Your task to perform on an android device: Open sound settings Image 0: 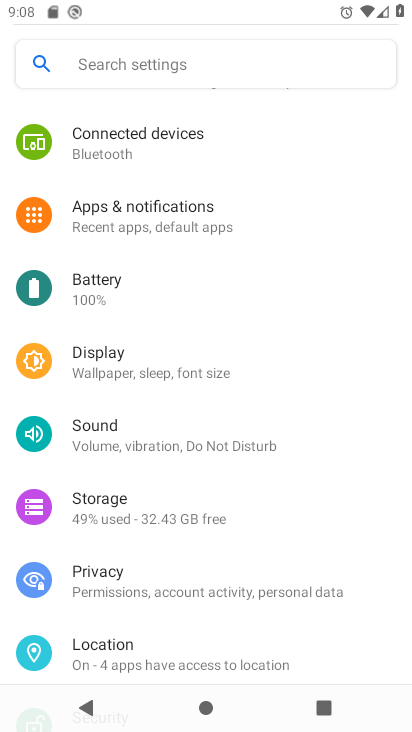
Step 0: click (190, 446)
Your task to perform on an android device: Open sound settings Image 1: 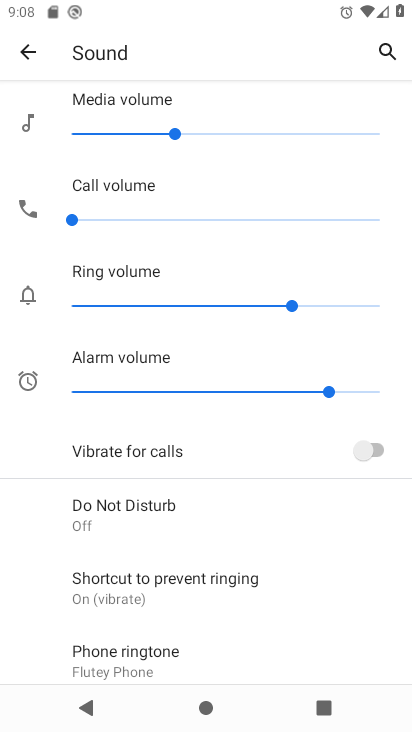
Step 1: task complete